Your task to perform on an android device: open app "LinkedIn" Image 0: 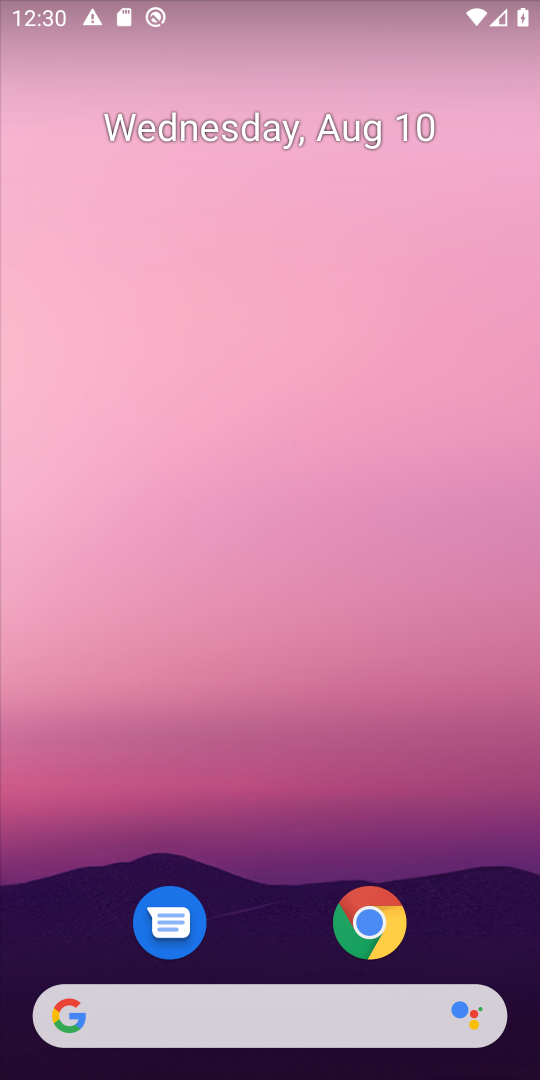
Step 0: drag from (261, 626) to (257, 1)
Your task to perform on an android device: open app "LinkedIn" Image 1: 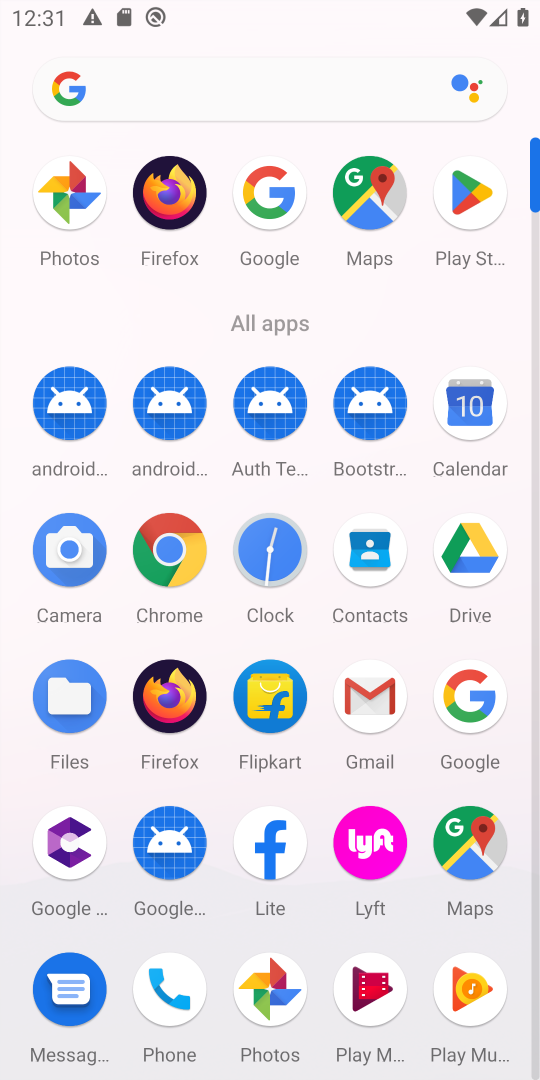
Step 1: click (469, 212)
Your task to perform on an android device: open app "LinkedIn" Image 2: 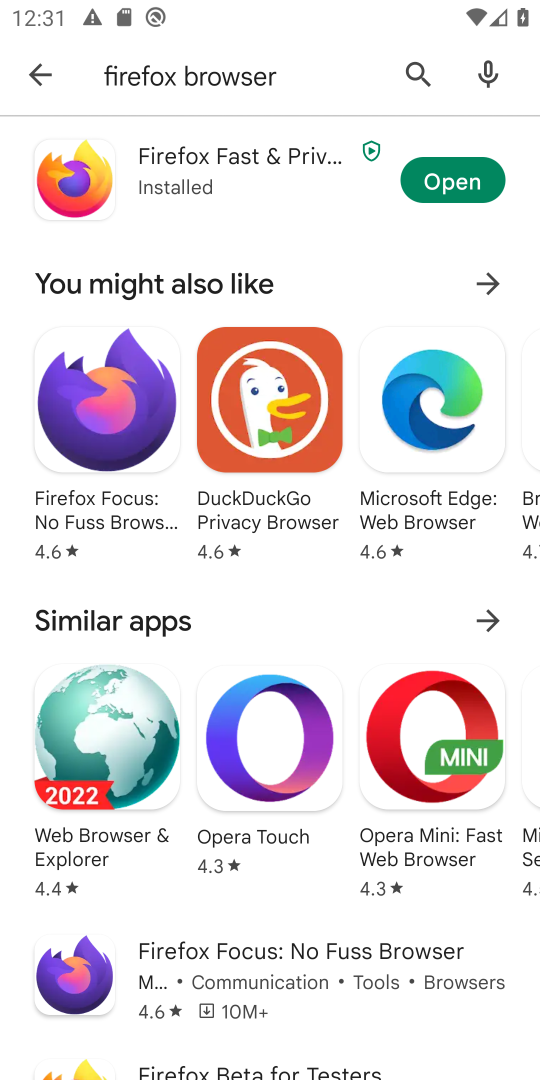
Step 2: click (10, 65)
Your task to perform on an android device: open app "LinkedIn" Image 3: 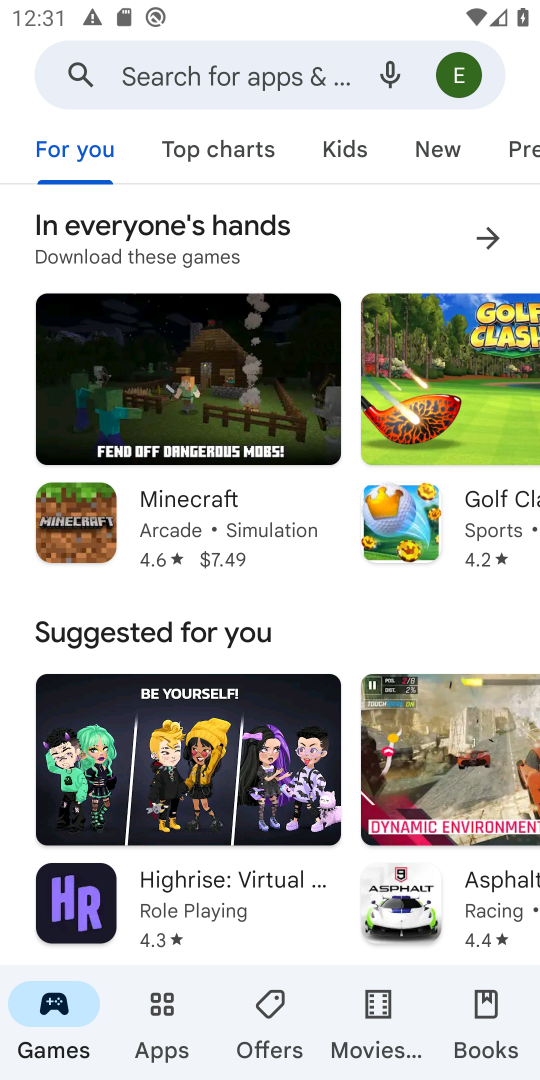
Step 3: click (237, 87)
Your task to perform on an android device: open app "LinkedIn" Image 4: 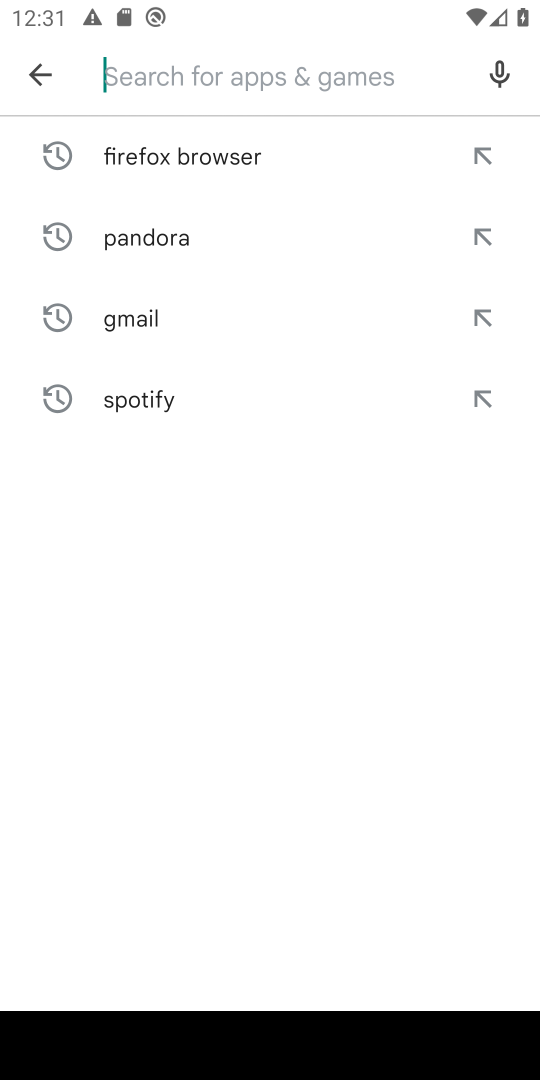
Step 4: type "LinkedIn"
Your task to perform on an android device: open app "LinkedIn" Image 5: 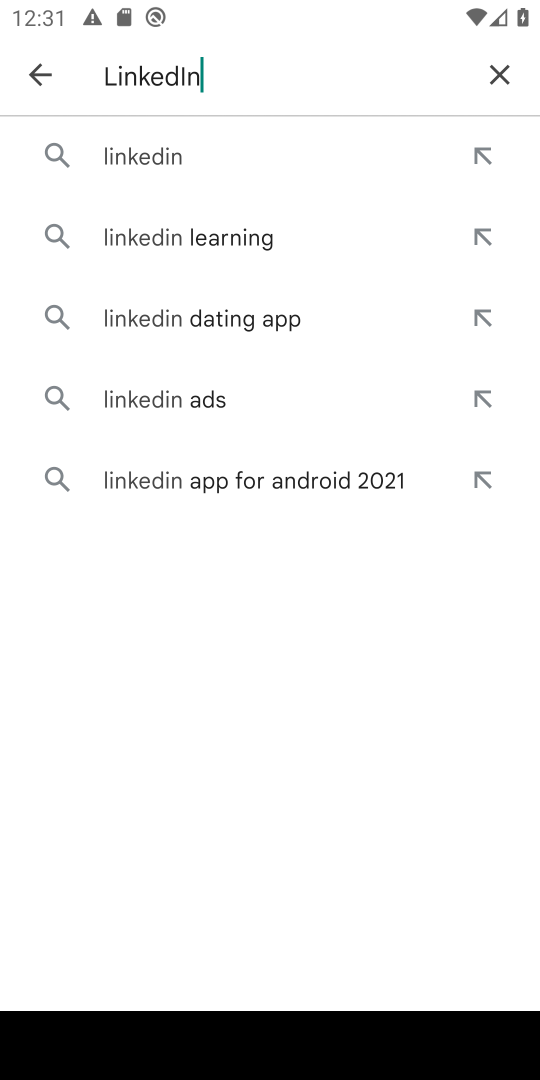
Step 5: click (132, 162)
Your task to perform on an android device: open app "LinkedIn" Image 6: 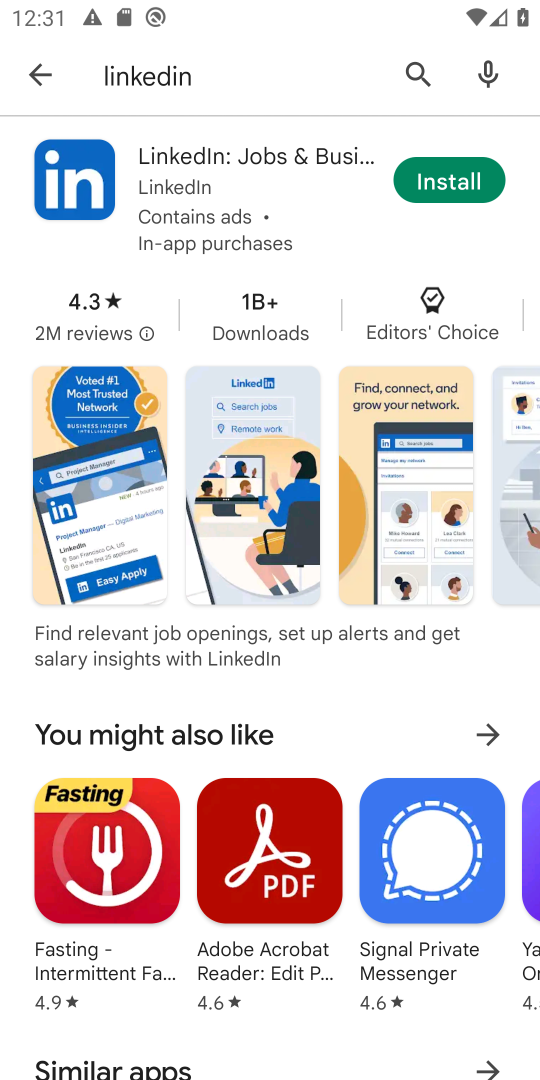
Step 6: click (435, 185)
Your task to perform on an android device: open app "LinkedIn" Image 7: 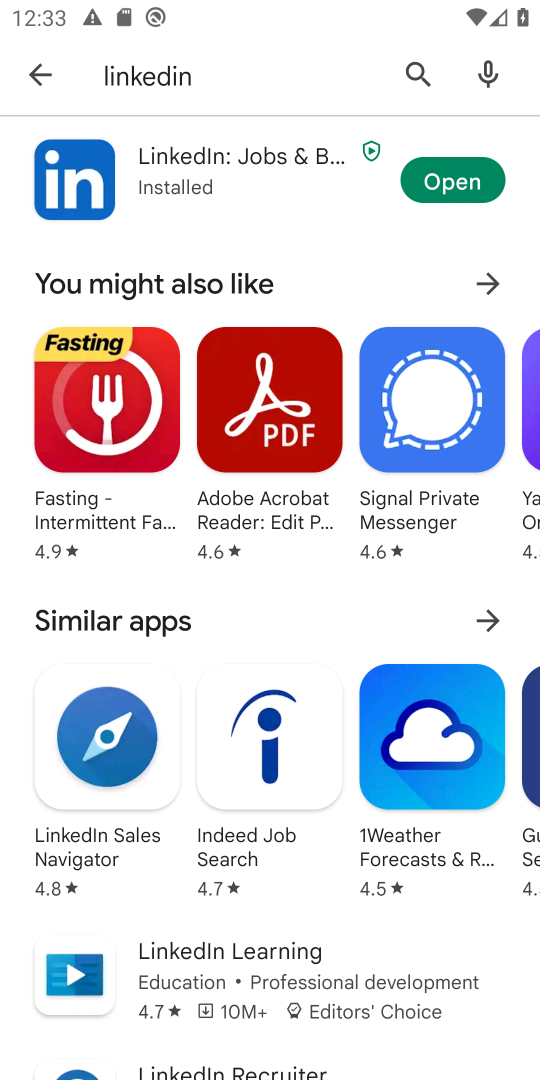
Step 7: click (435, 185)
Your task to perform on an android device: open app "LinkedIn" Image 8: 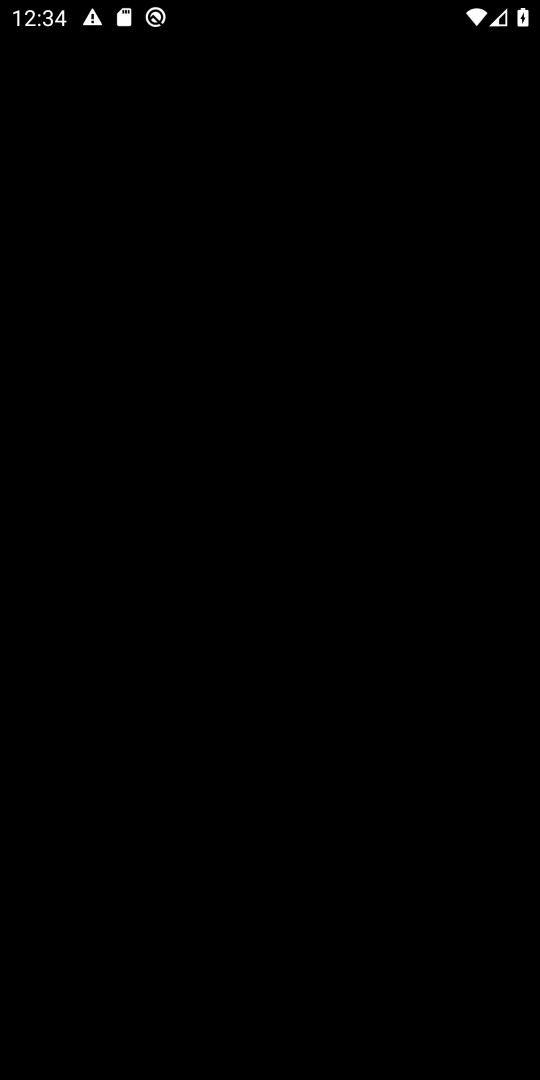
Step 8: task complete